Your task to perform on an android device: toggle priority inbox in the gmail app Image 0: 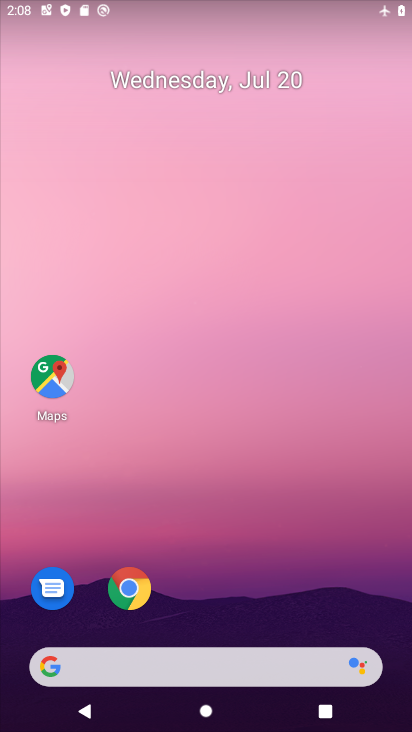
Step 0: drag from (272, 203) to (287, 12)
Your task to perform on an android device: toggle priority inbox in the gmail app Image 1: 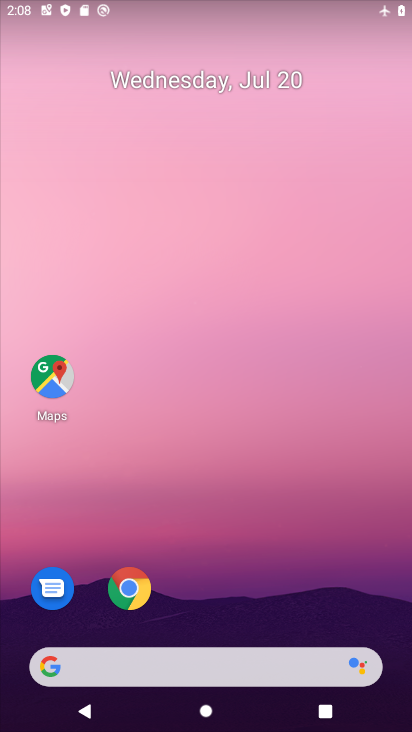
Step 1: drag from (220, 608) to (262, 78)
Your task to perform on an android device: toggle priority inbox in the gmail app Image 2: 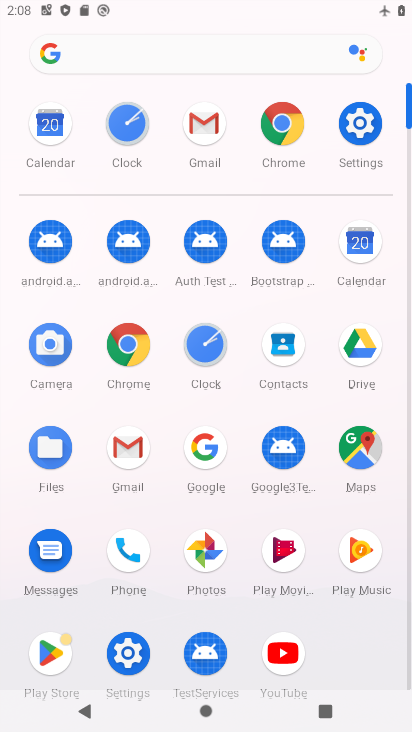
Step 2: click (196, 117)
Your task to perform on an android device: toggle priority inbox in the gmail app Image 3: 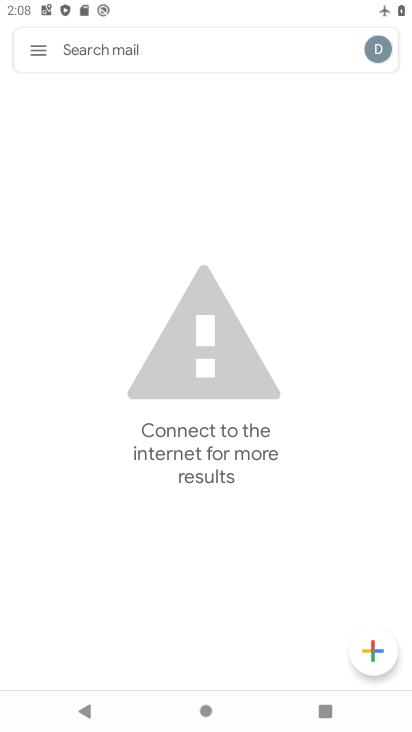
Step 3: click (44, 58)
Your task to perform on an android device: toggle priority inbox in the gmail app Image 4: 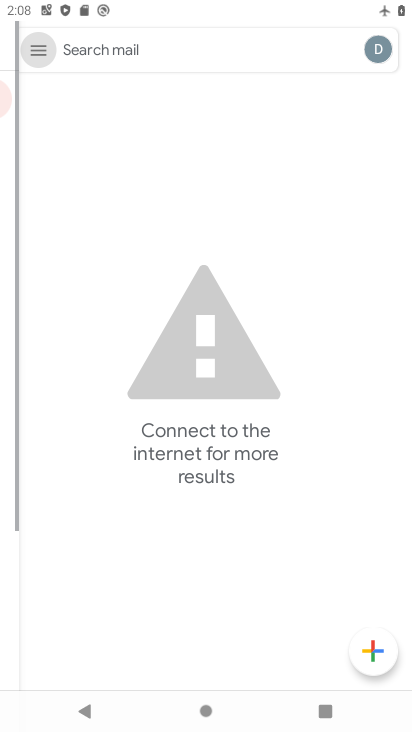
Step 4: click (44, 60)
Your task to perform on an android device: toggle priority inbox in the gmail app Image 5: 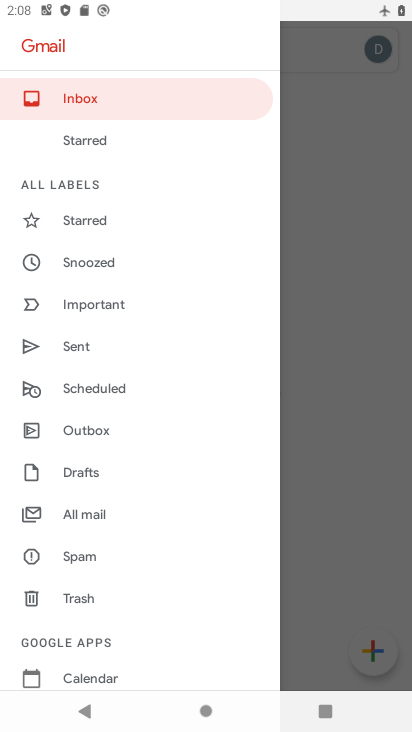
Step 5: drag from (111, 575) to (128, 143)
Your task to perform on an android device: toggle priority inbox in the gmail app Image 6: 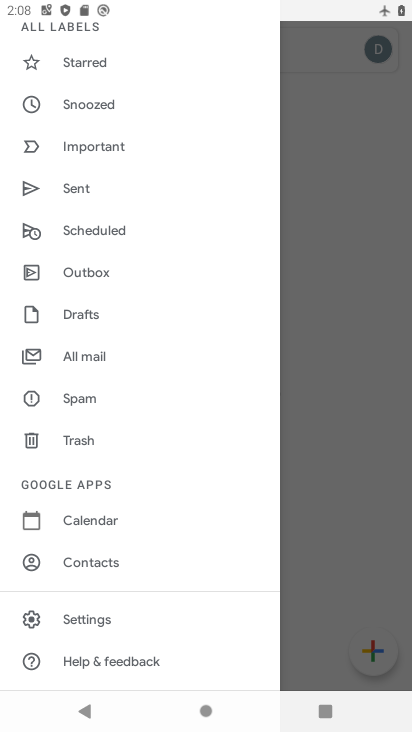
Step 6: click (78, 626)
Your task to perform on an android device: toggle priority inbox in the gmail app Image 7: 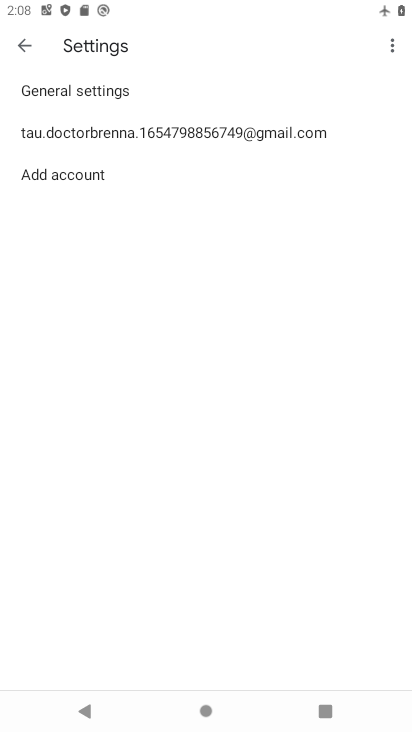
Step 7: click (41, 132)
Your task to perform on an android device: toggle priority inbox in the gmail app Image 8: 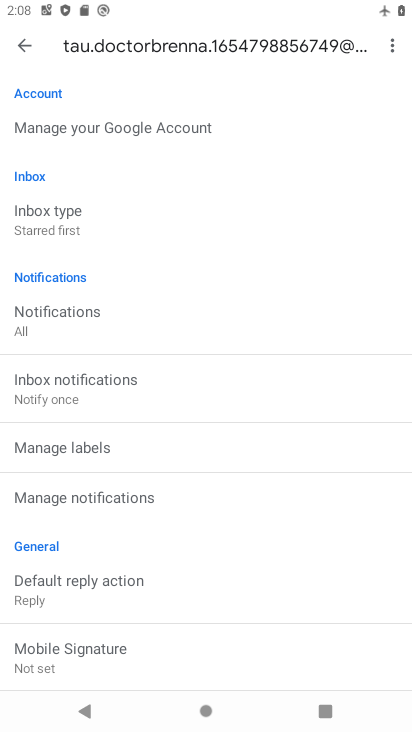
Step 8: click (56, 219)
Your task to perform on an android device: toggle priority inbox in the gmail app Image 9: 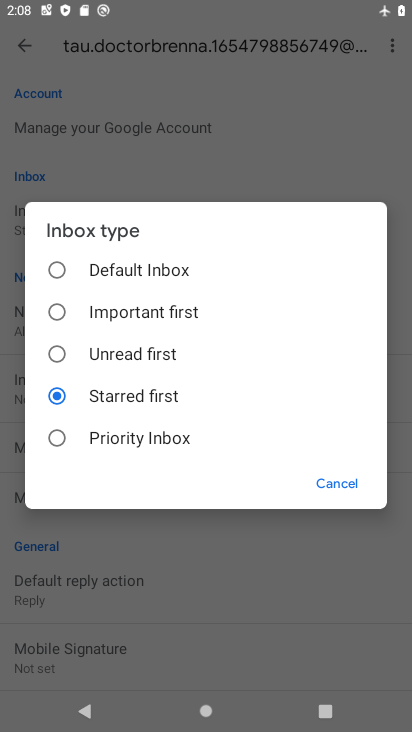
Step 9: click (117, 447)
Your task to perform on an android device: toggle priority inbox in the gmail app Image 10: 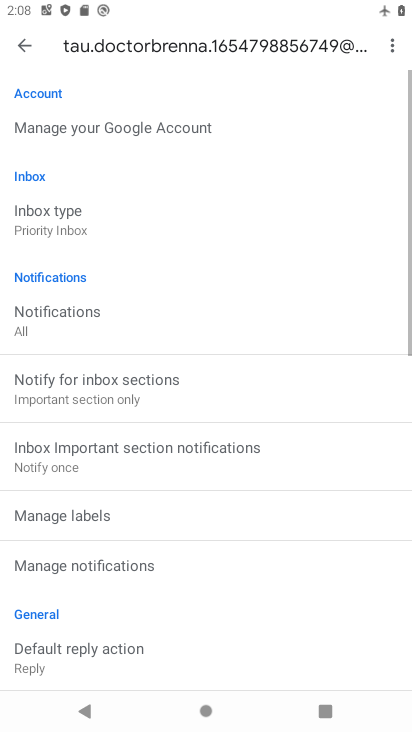
Step 10: task complete